Your task to perform on an android device: Do I have any events today? Image 0: 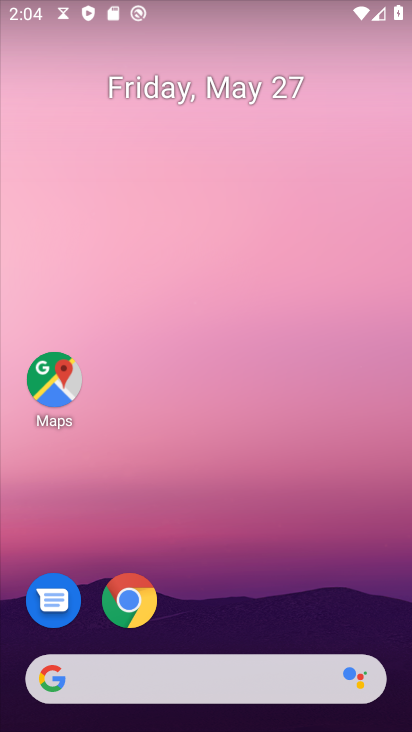
Step 0: drag from (261, 552) to (216, 60)
Your task to perform on an android device: Do I have any events today? Image 1: 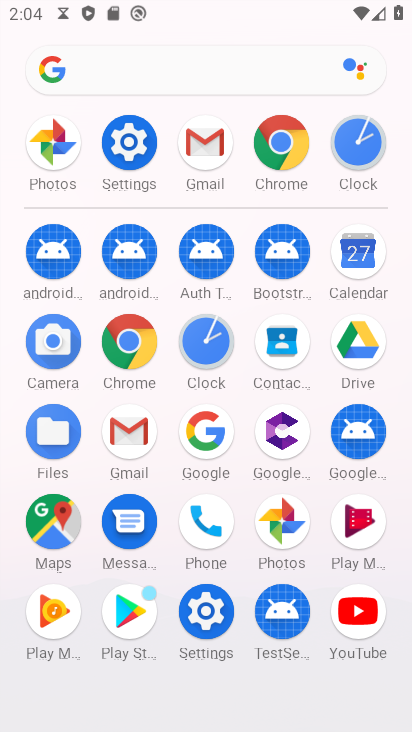
Step 1: click (356, 242)
Your task to perform on an android device: Do I have any events today? Image 2: 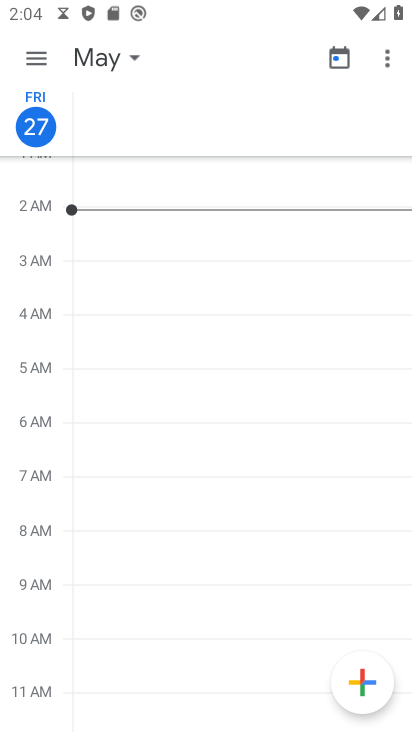
Step 2: click (92, 55)
Your task to perform on an android device: Do I have any events today? Image 3: 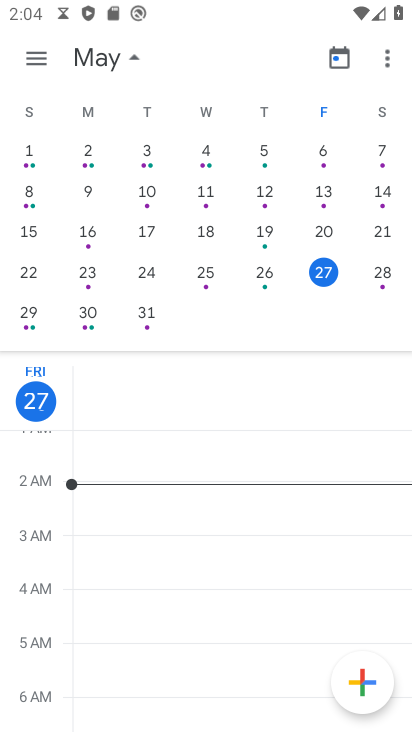
Step 3: click (329, 275)
Your task to perform on an android device: Do I have any events today? Image 4: 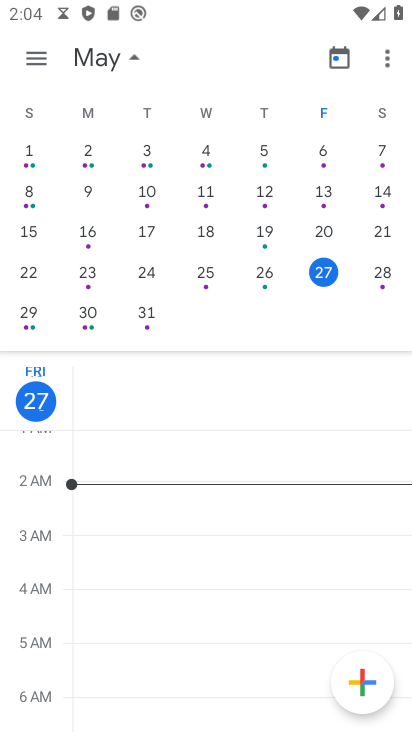
Step 4: click (326, 271)
Your task to perform on an android device: Do I have any events today? Image 5: 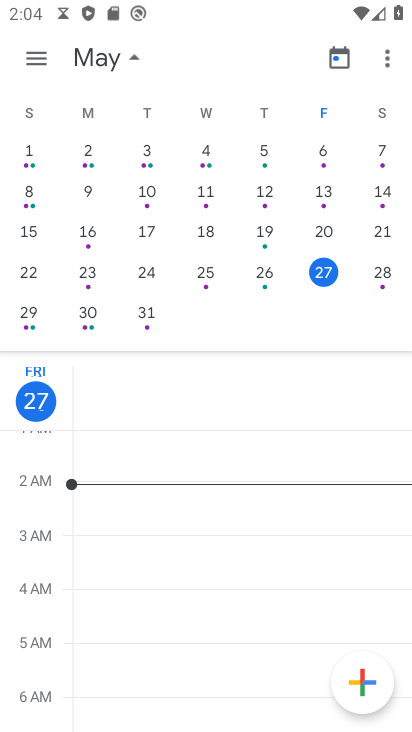
Step 5: click (39, 396)
Your task to perform on an android device: Do I have any events today? Image 6: 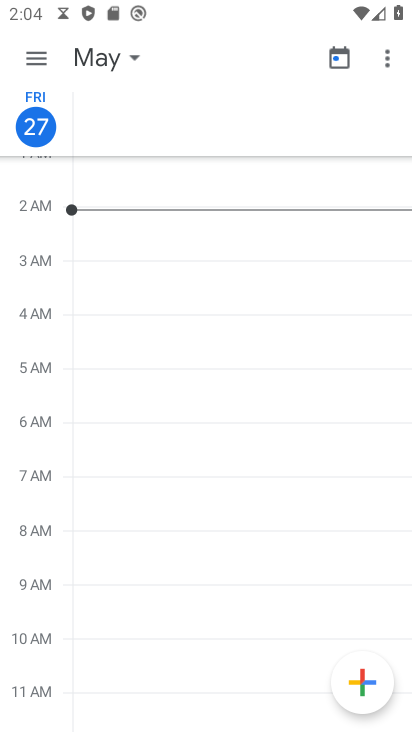
Step 6: task complete